Your task to perform on an android device: toggle airplane mode Image 0: 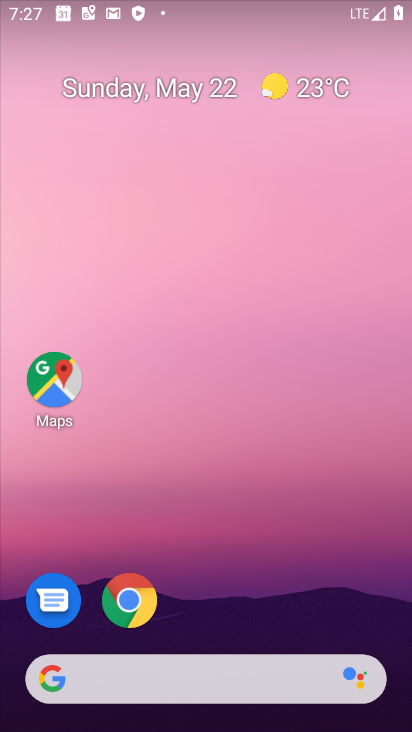
Step 0: drag from (390, 634) to (324, 167)
Your task to perform on an android device: toggle airplane mode Image 1: 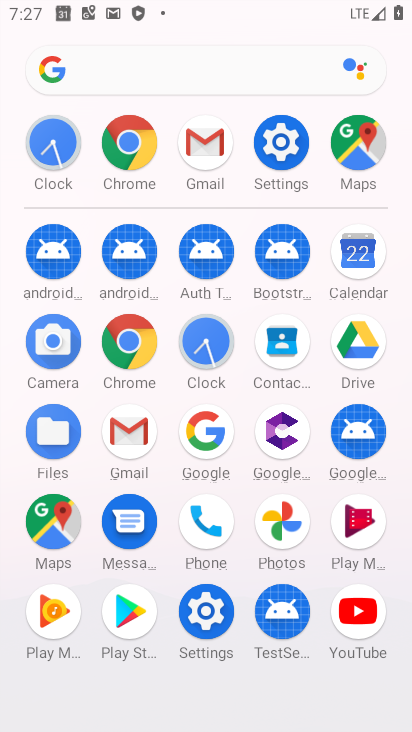
Step 1: drag from (255, 28) to (279, 543)
Your task to perform on an android device: toggle airplane mode Image 2: 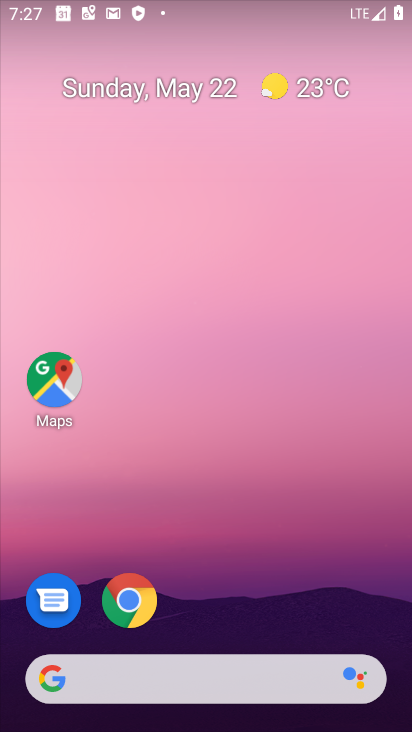
Step 2: drag from (238, 2) to (315, 456)
Your task to perform on an android device: toggle airplane mode Image 3: 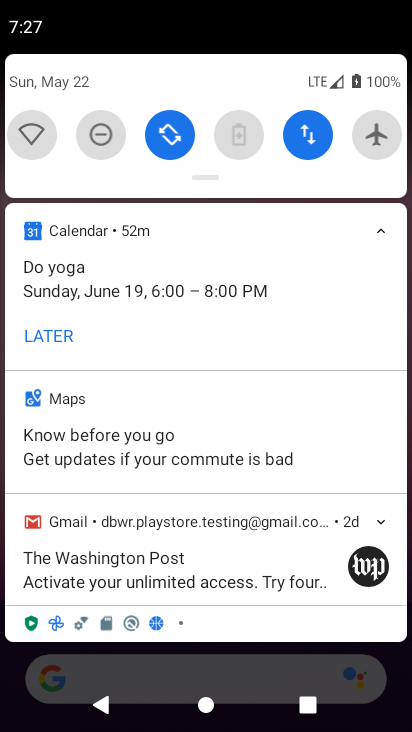
Step 3: click (380, 144)
Your task to perform on an android device: toggle airplane mode Image 4: 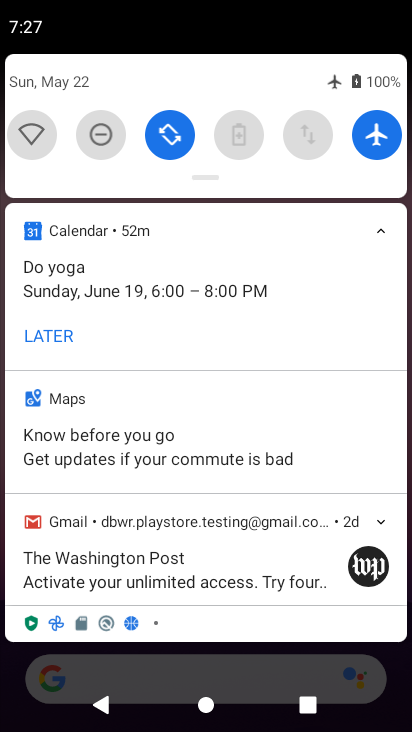
Step 4: task complete